Your task to perform on an android device: Add "razer naga" to the cart on newegg.com Image 0: 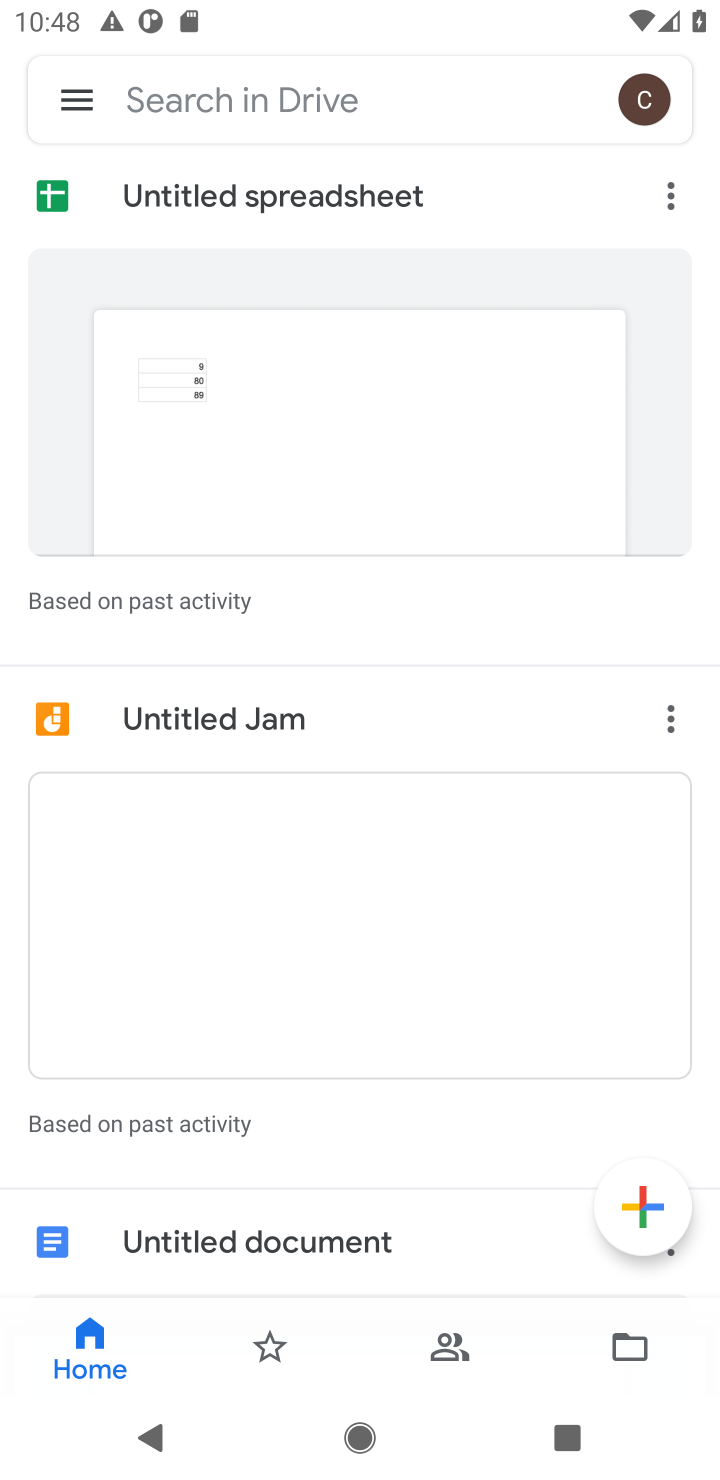
Step 0: press home button
Your task to perform on an android device: Add "razer naga" to the cart on newegg.com Image 1: 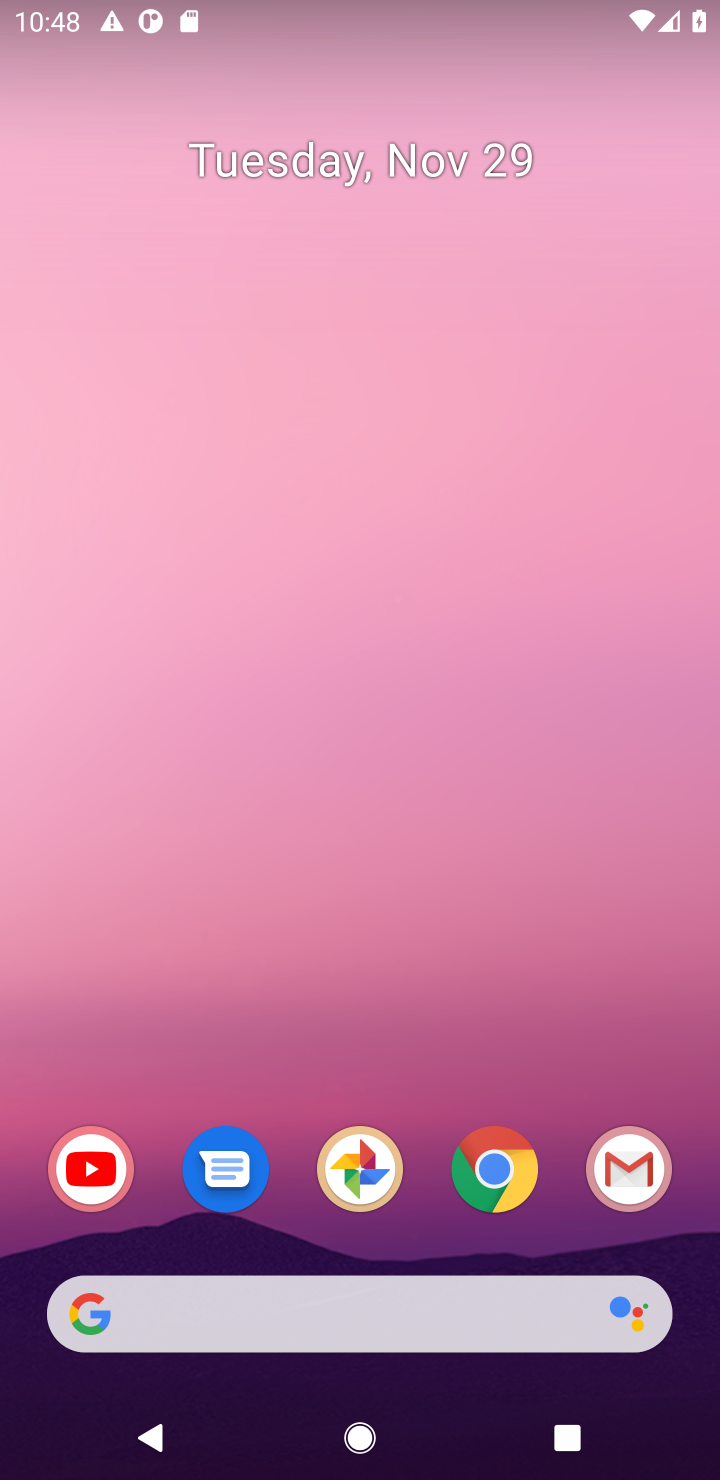
Step 1: click (192, 1312)
Your task to perform on an android device: Add "razer naga" to the cart on newegg.com Image 2: 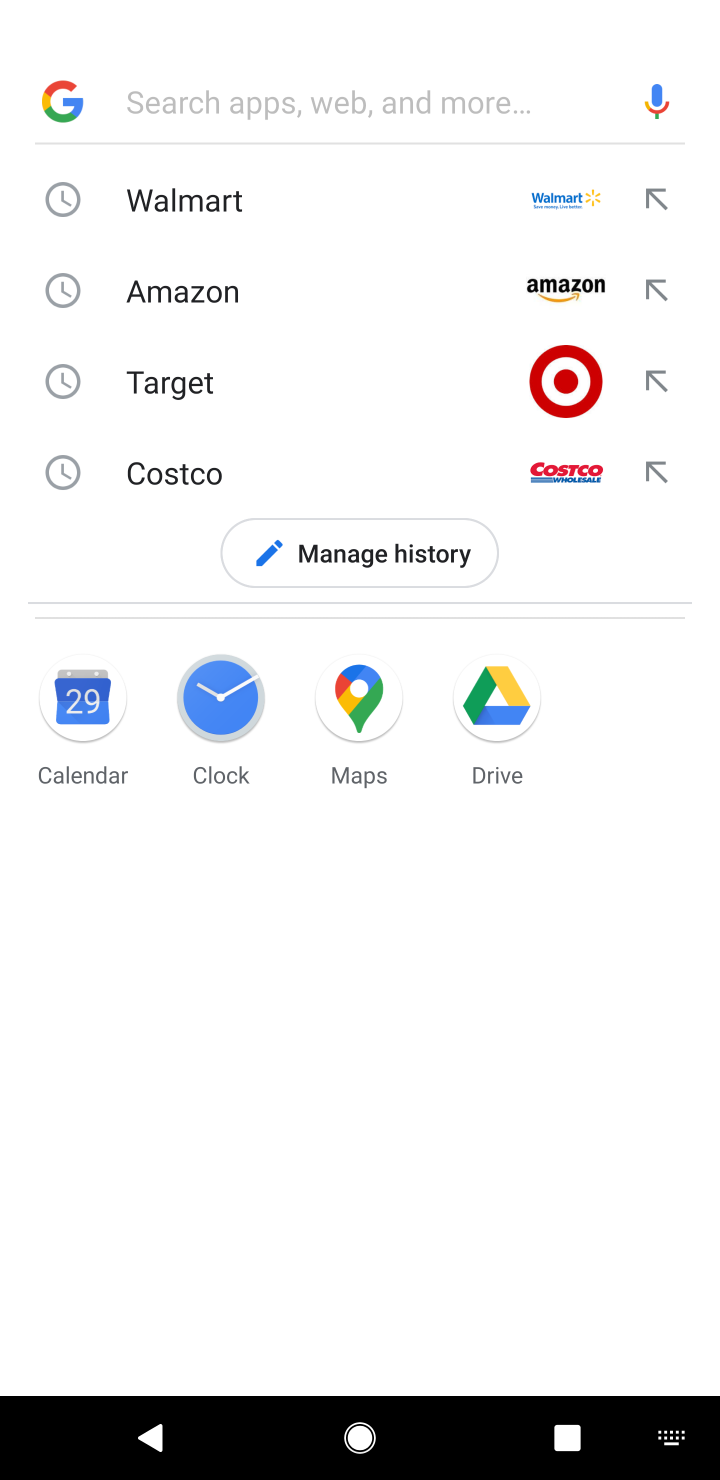
Step 2: type "newegg"
Your task to perform on an android device: Add "razer naga" to the cart on newegg.com Image 3: 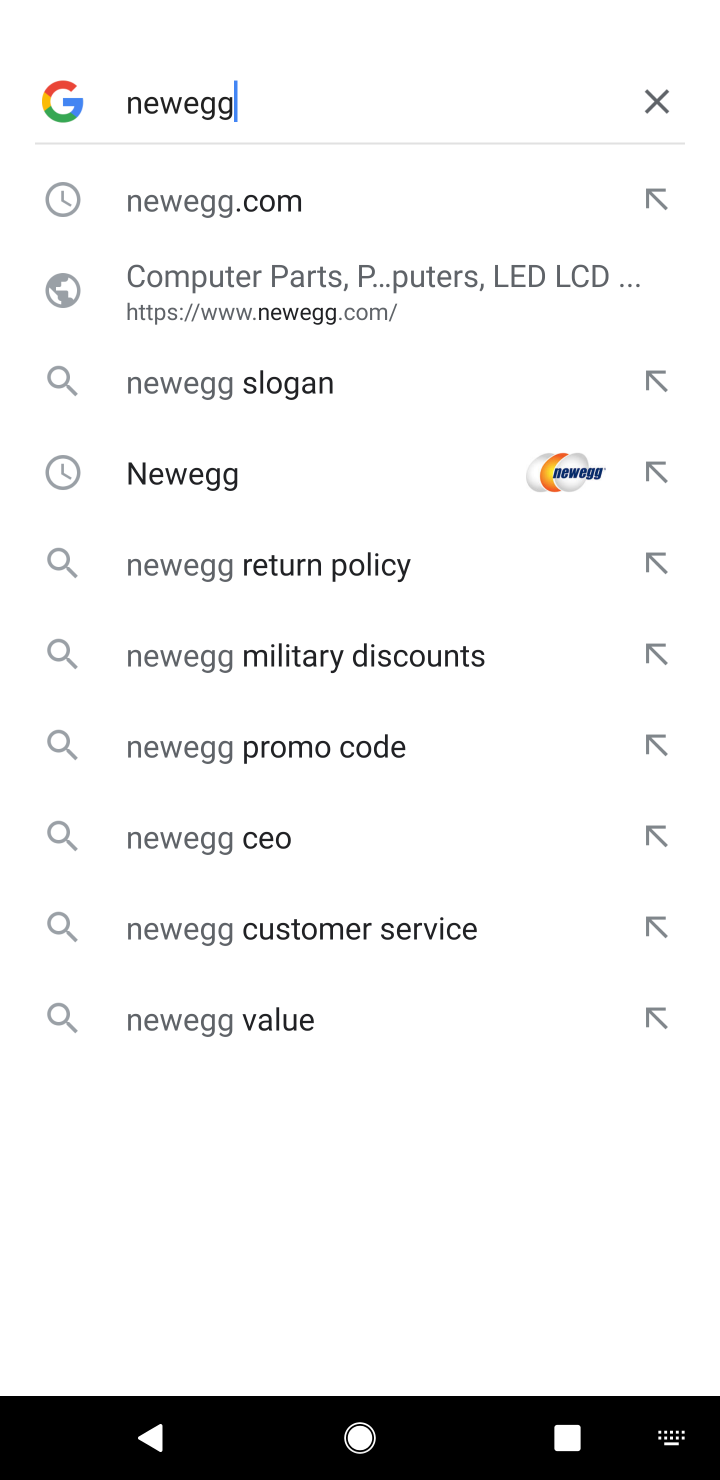
Step 3: click (263, 223)
Your task to perform on an android device: Add "razer naga" to the cart on newegg.com Image 4: 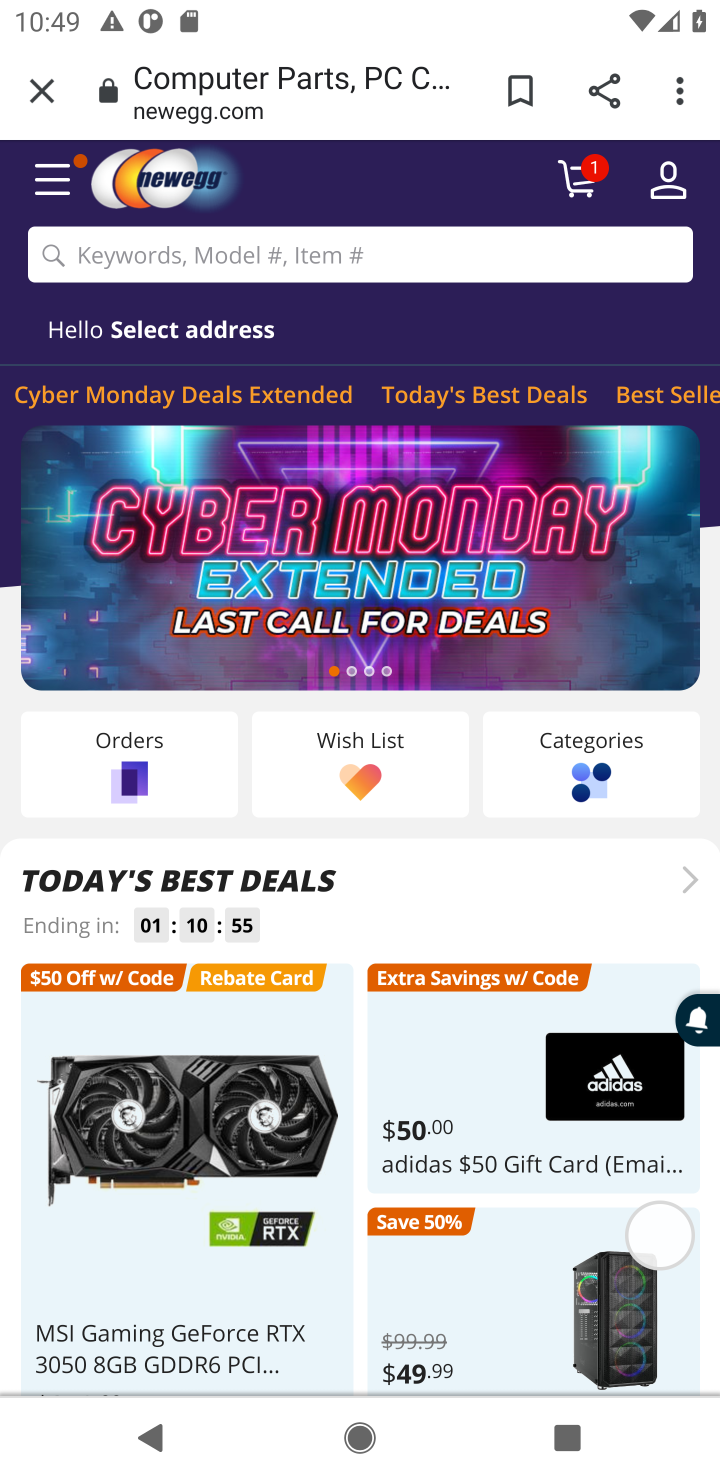
Step 4: click (305, 253)
Your task to perform on an android device: Add "razer naga" to the cart on newegg.com Image 5: 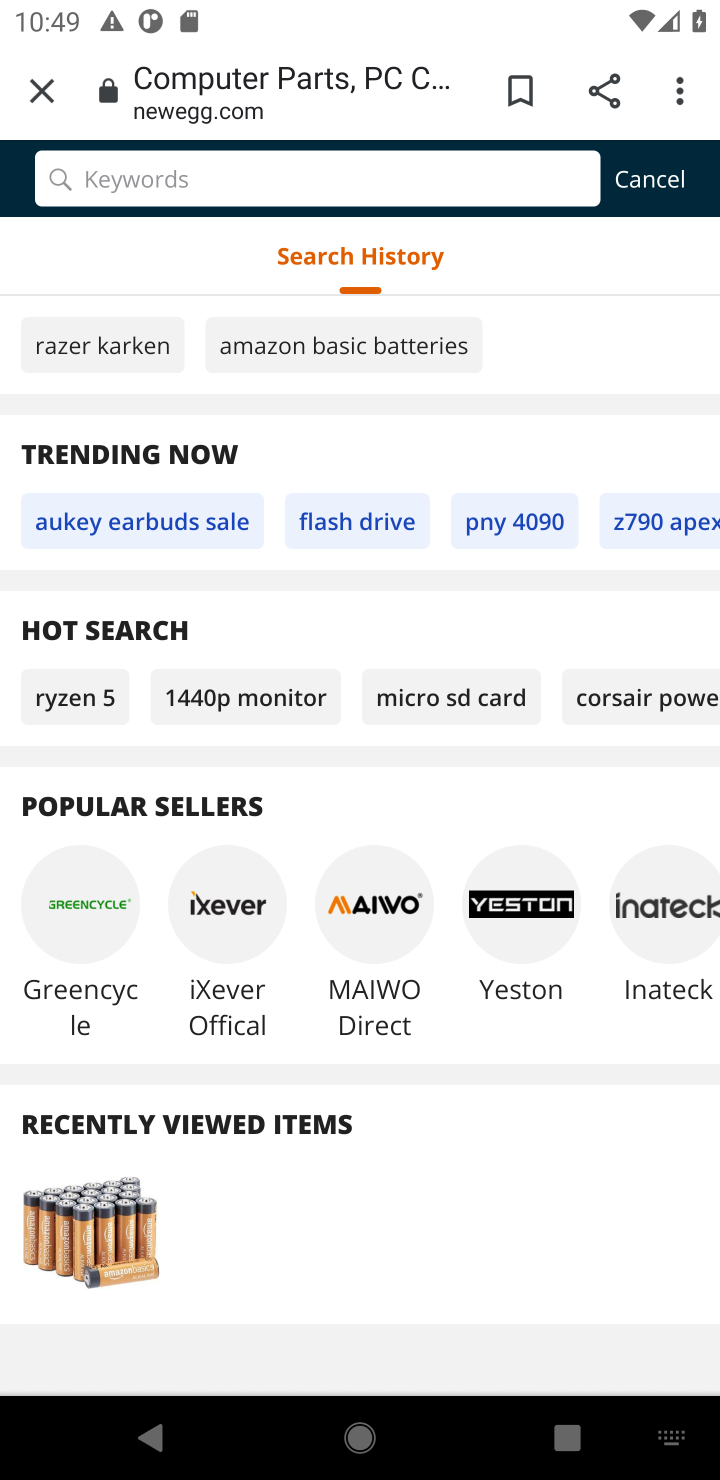
Step 5: type "razer naga"
Your task to perform on an android device: Add "razer naga" to the cart on newegg.com Image 6: 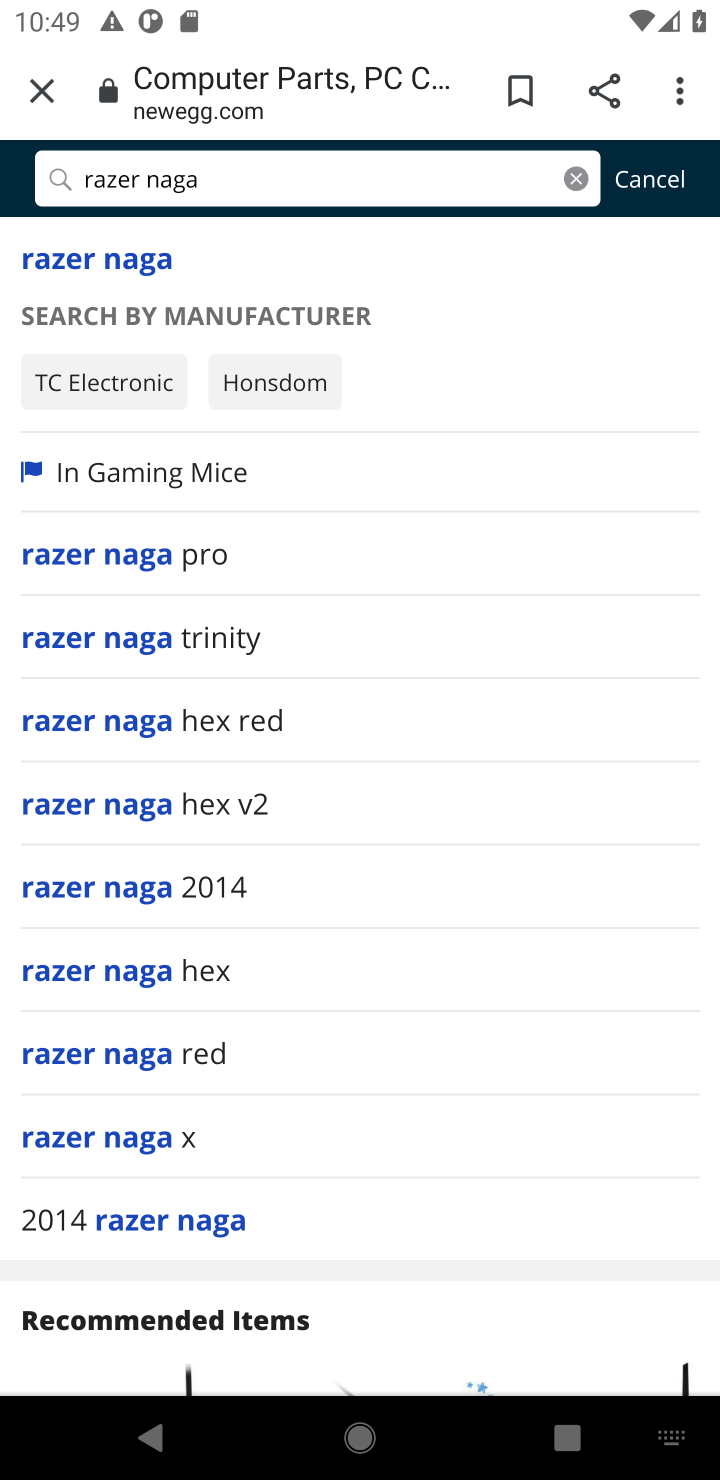
Step 6: click (33, 265)
Your task to perform on an android device: Add "razer naga" to the cart on newegg.com Image 7: 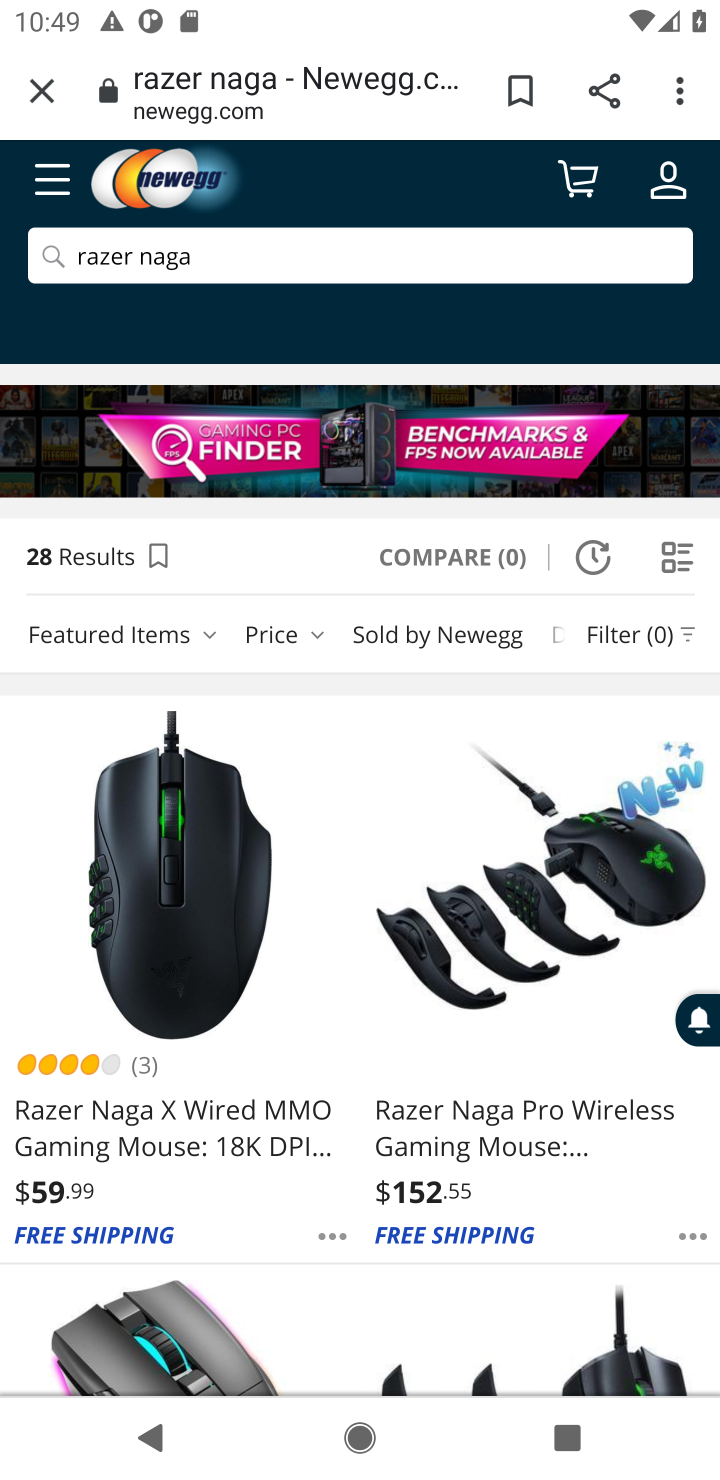
Step 7: click (256, 900)
Your task to perform on an android device: Add "razer naga" to the cart on newegg.com Image 8: 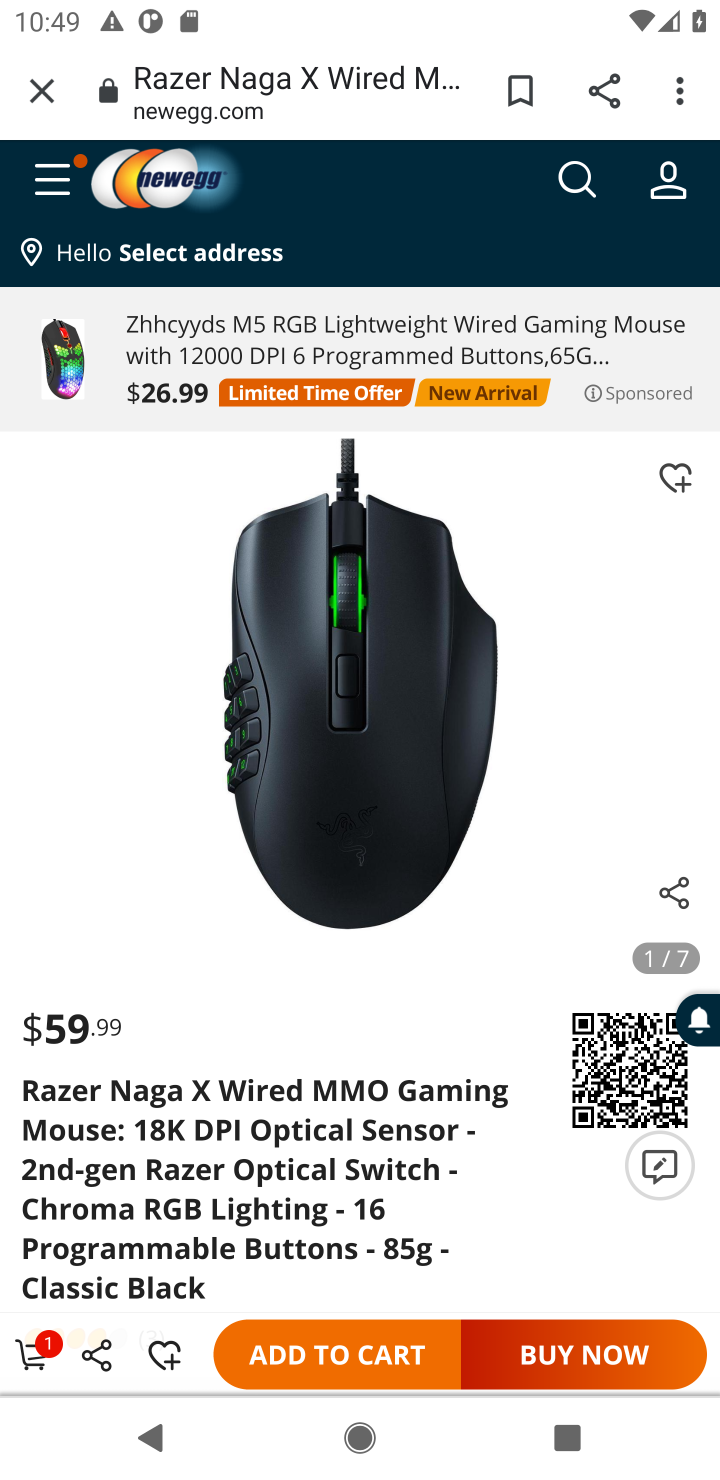
Step 8: click (343, 1335)
Your task to perform on an android device: Add "razer naga" to the cart on newegg.com Image 9: 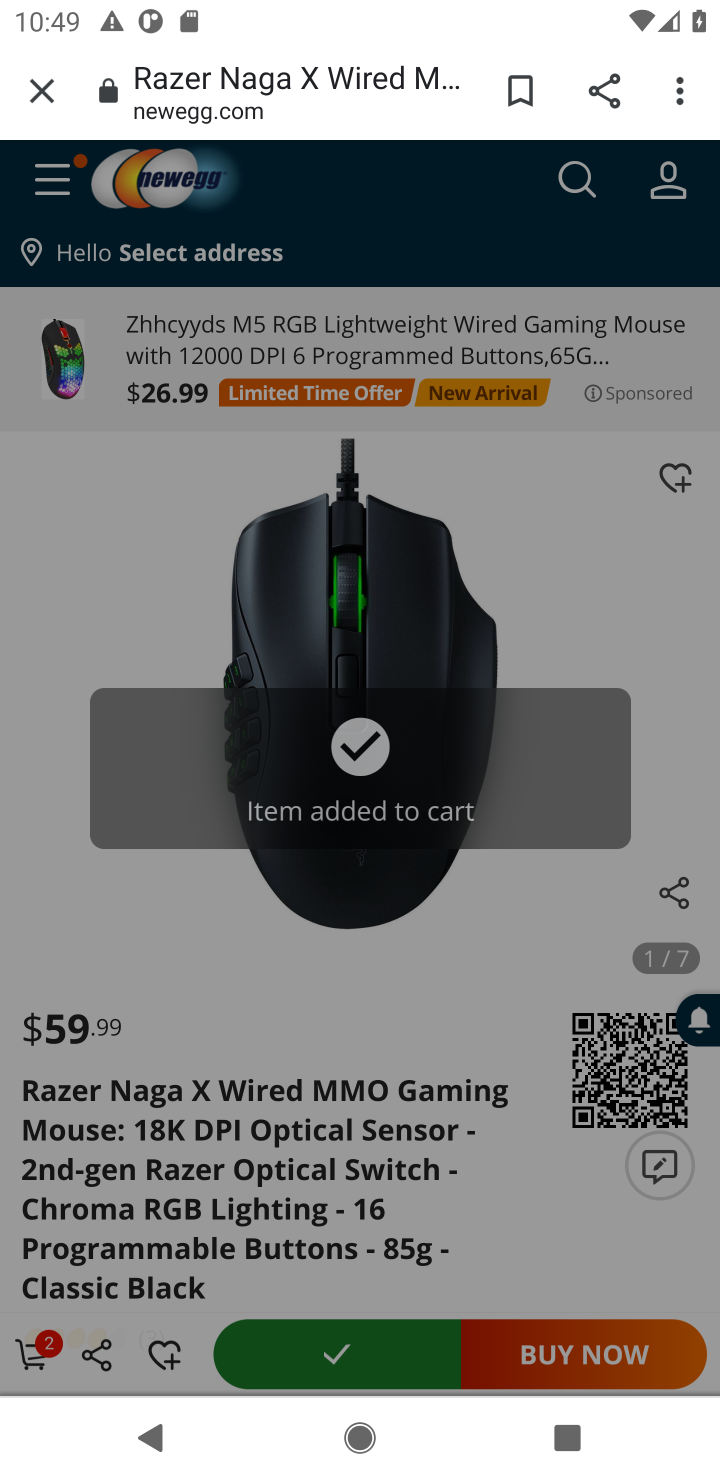
Step 9: task complete